Your task to perform on an android device: delete browsing data in the chrome app Image 0: 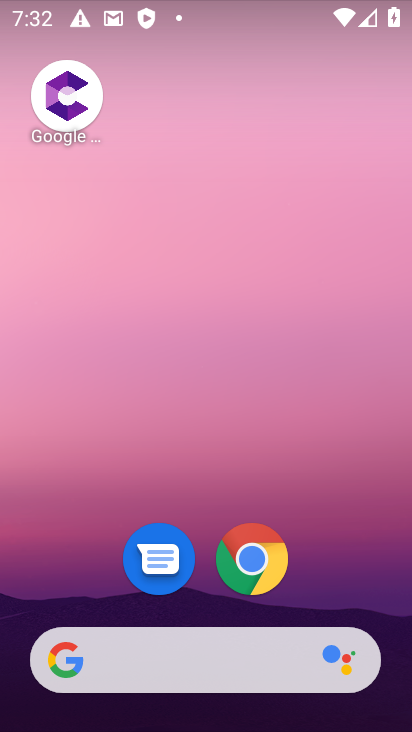
Step 0: click (251, 549)
Your task to perform on an android device: delete browsing data in the chrome app Image 1: 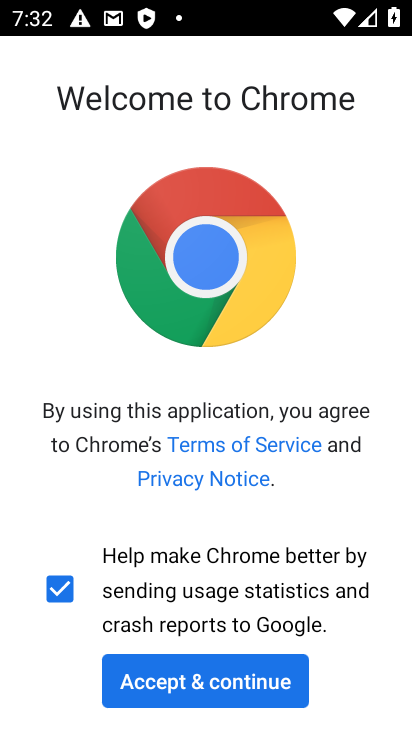
Step 1: click (235, 683)
Your task to perform on an android device: delete browsing data in the chrome app Image 2: 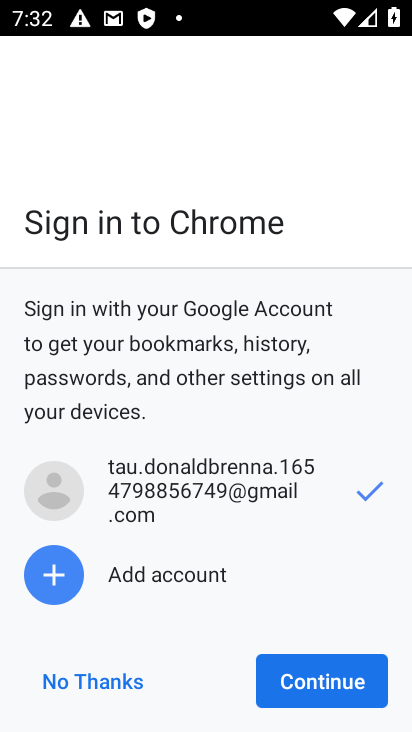
Step 2: click (333, 694)
Your task to perform on an android device: delete browsing data in the chrome app Image 3: 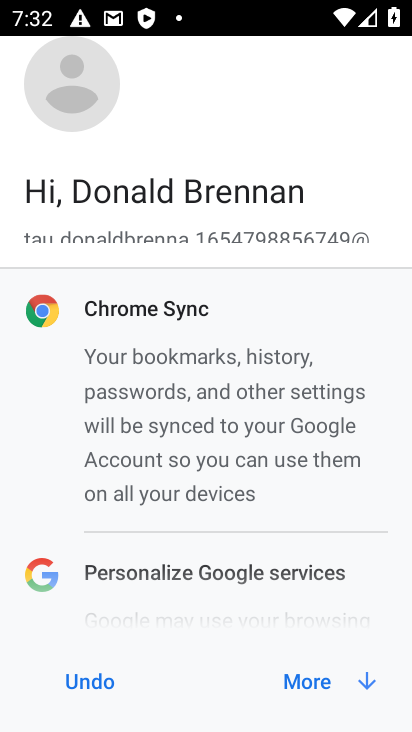
Step 3: click (325, 682)
Your task to perform on an android device: delete browsing data in the chrome app Image 4: 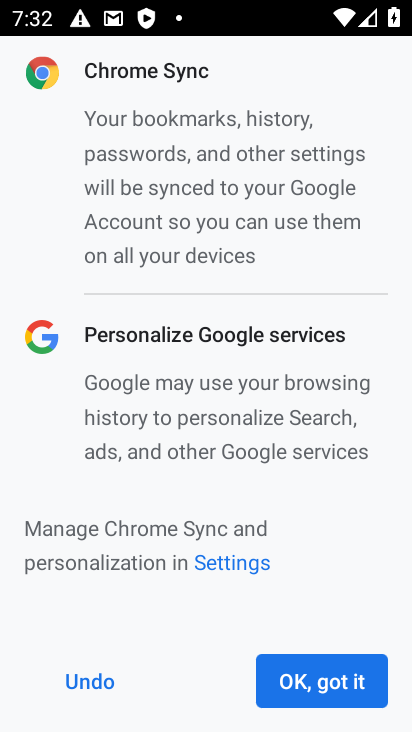
Step 4: click (327, 682)
Your task to perform on an android device: delete browsing data in the chrome app Image 5: 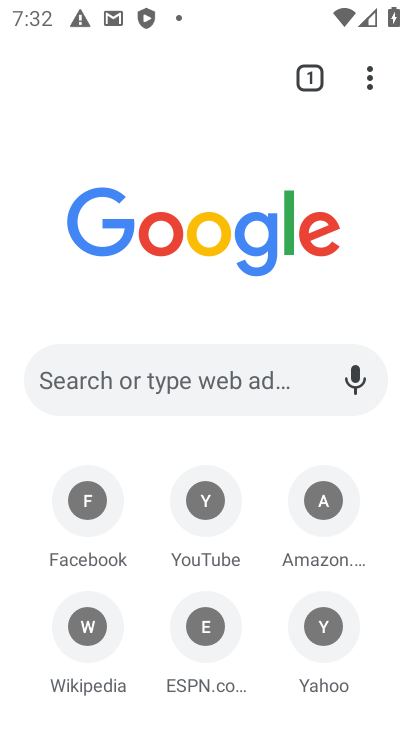
Step 5: click (363, 75)
Your task to perform on an android device: delete browsing data in the chrome app Image 6: 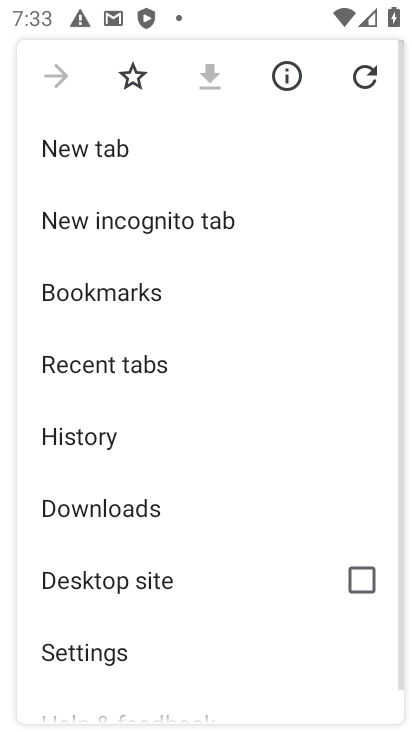
Step 6: drag from (92, 609) to (92, 549)
Your task to perform on an android device: delete browsing data in the chrome app Image 7: 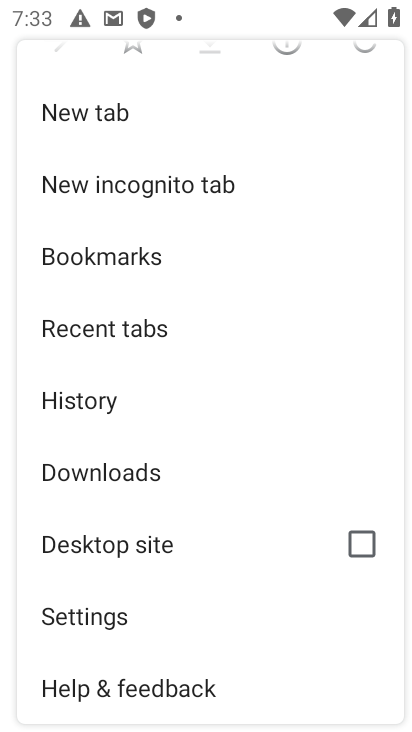
Step 7: click (66, 404)
Your task to perform on an android device: delete browsing data in the chrome app Image 8: 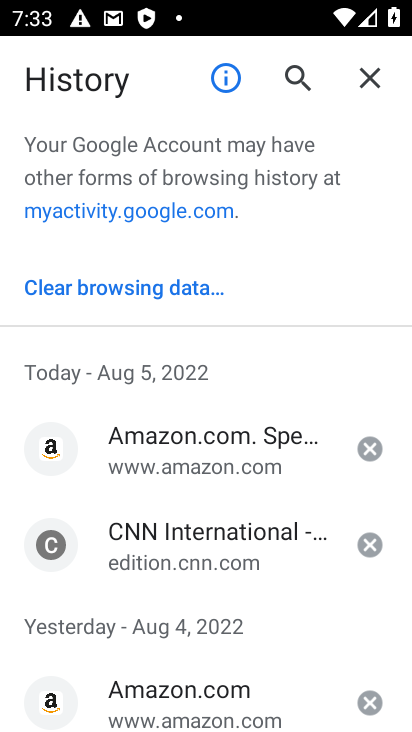
Step 8: click (144, 292)
Your task to perform on an android device: delete browsing data in the chrome app Image 9: 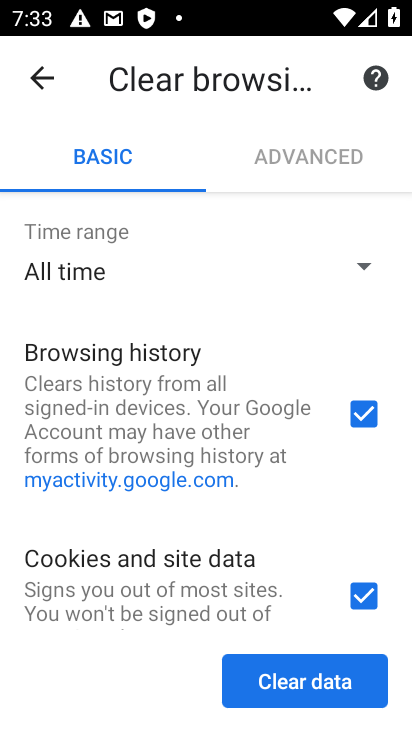
Step 9: click (309, 684)
Your task to perform on an android device: delete browsing data in the chrome app Image 10: 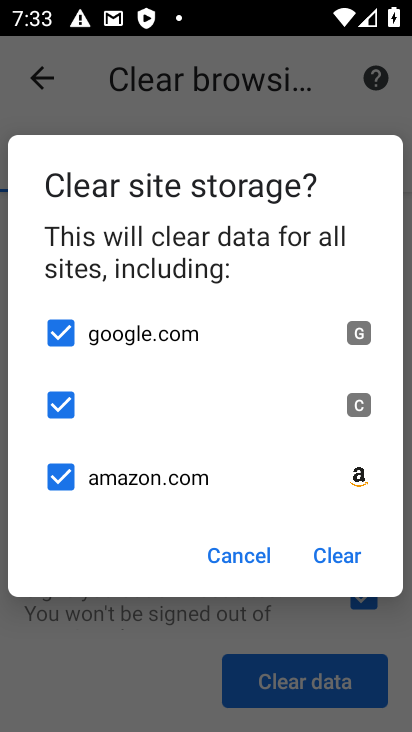
Step 10: click (339, 551)
Your task to perform on an android device: delete browsing data in the chrome app Image 11: 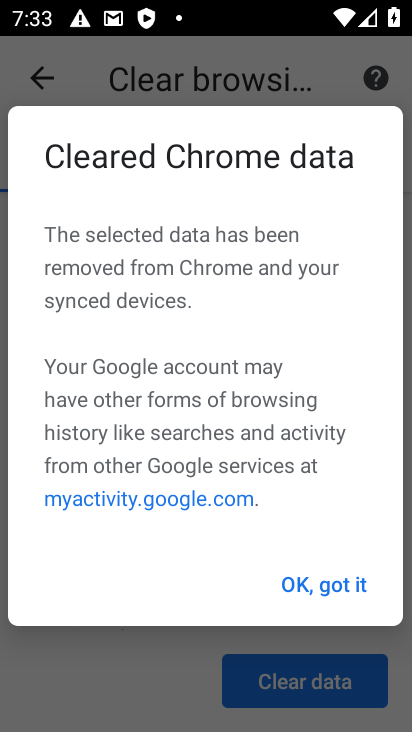
Step 11: click (326, 582)
Your task to perform on an android device: delete browsing data in the chrome app Image 12: 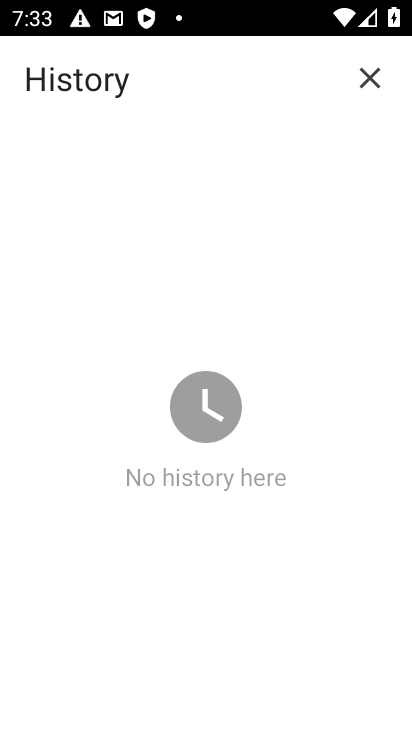
Step 12: task complete